Your task to perform on an android device: Open Yahoo.com Image 0: 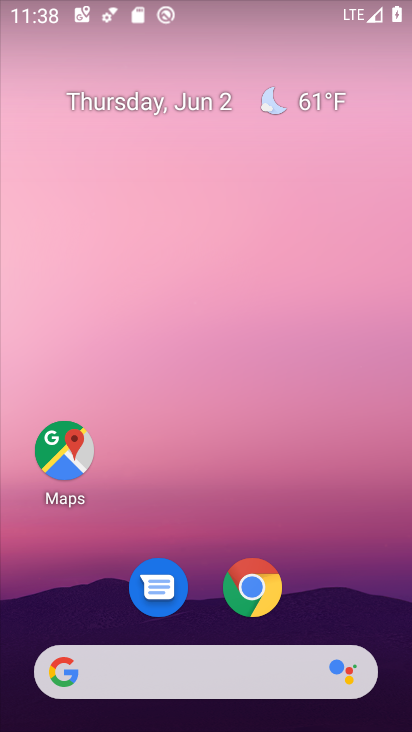
Step 0: click (199, 677)
Your task to perform on an android device: Open Yahoo.com Image 1: 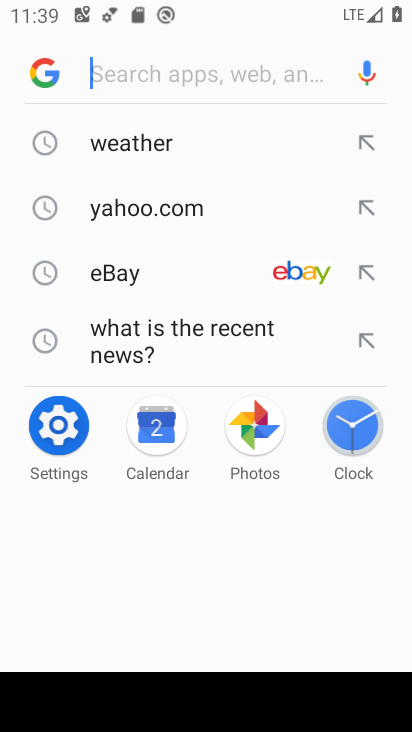
Step 1: type "yahoo.com"
Your task to perform on an android device: Open Yahoo.com Image 2: 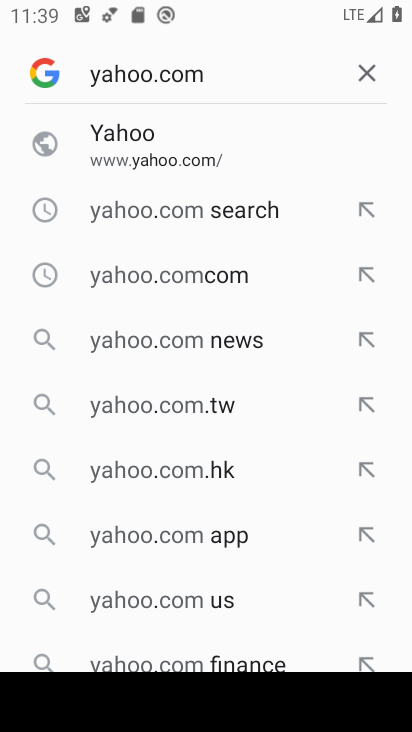
Step 2: click (191, 142)
Your task to perform on an android device: Open Yahoo.com Image 3: 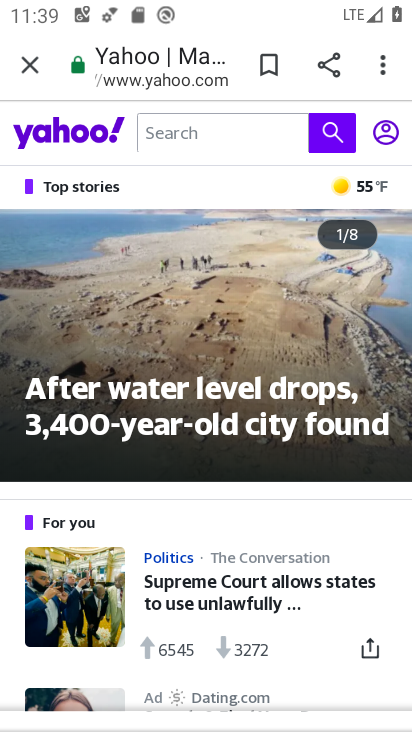
Step 3: task complete